Your task to perform on an android device: Open accessibility settings Image 0: 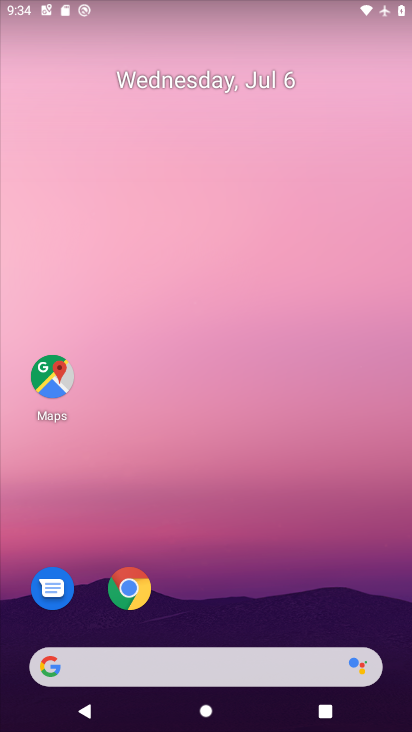
Step 0: drag from (166, 674) to (273, 67)
Your task to perform on an android device: Open accessibility settings Image 1: 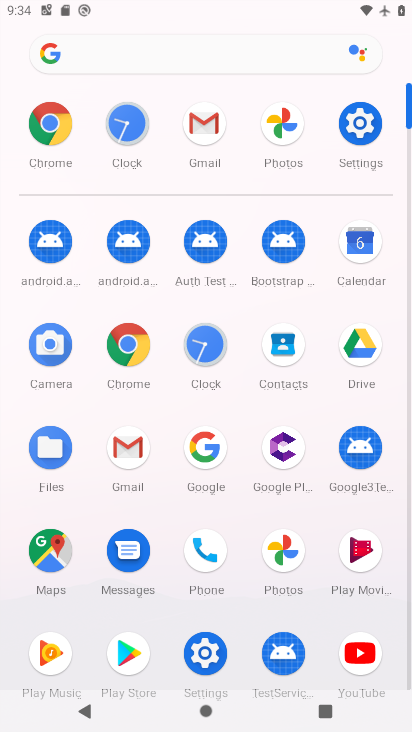
Step 1: click (363, 126)
Your task to perform on an android device: Open accessibility settings Image 2: 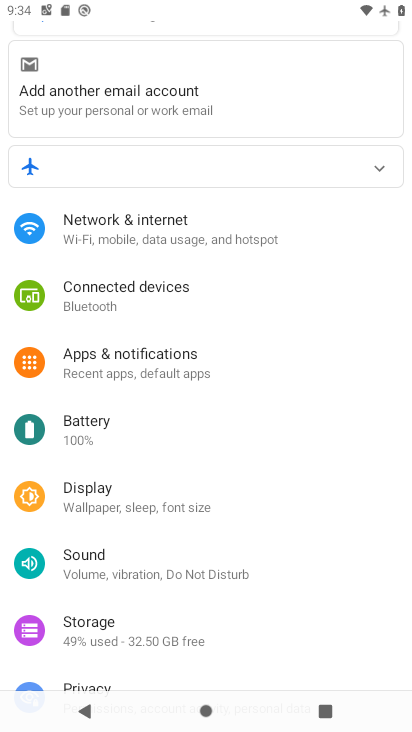
Step 2: drag from (218, 625) to (242, 135)
Your task to perform on an android device: Open accessibility settings Image 3: 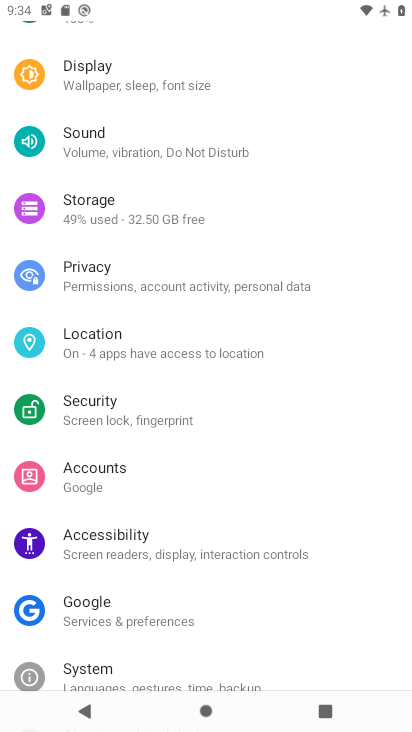
Step 3: click (165, 548)
Your task to perform on an android device: Open accessibility settings Image 4: 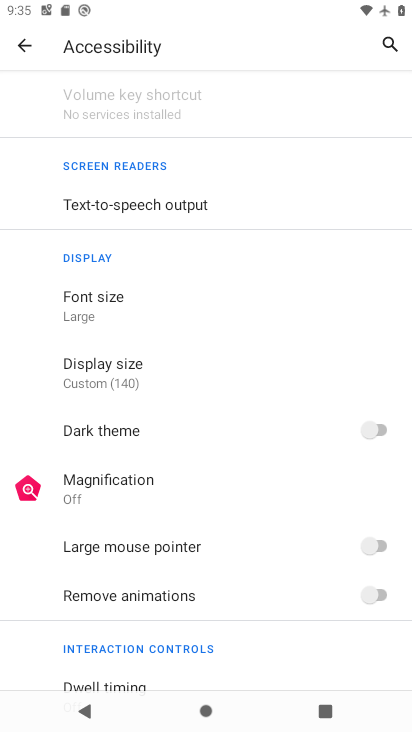
Step 4: task complete